Your task to perform on an android device: turn on showing notifications on the lock screen Image 0: 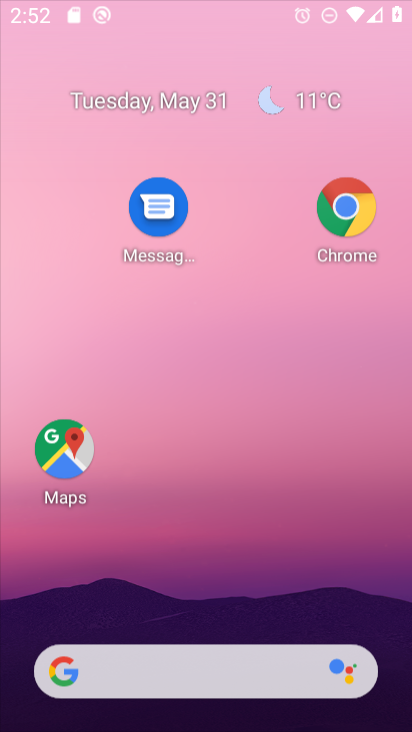
Step 0: click (329, 79)
Your task to perform on an android device: turn on showing notifications on the lock screen Image 1: 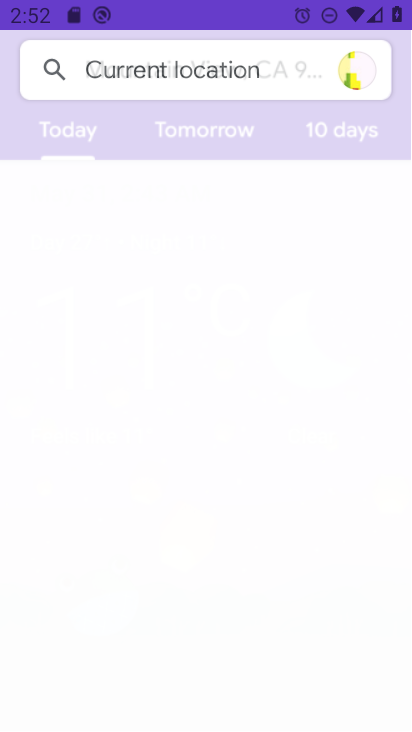
Step 1: drag from (213, 588) to (364, 16)
Your task to perform on an android device: turn on showing notifications on the lock screen Image 2: 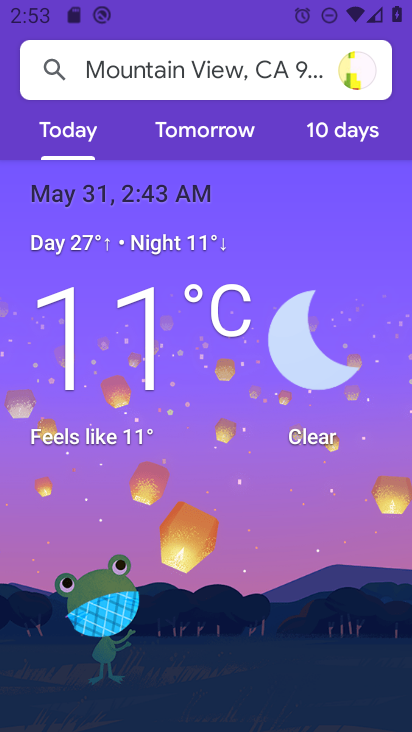
Step 2: press home button
Your task to perform on an android device: turn on showing notifications on the lock screen Image 3: 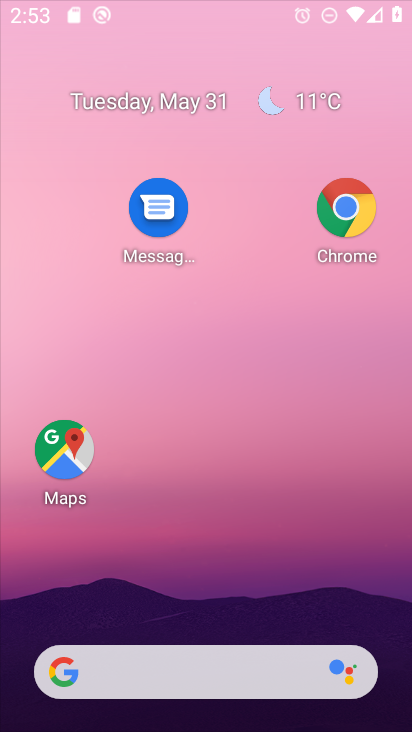
Step 3: drag from (209, 617) to (285, 39)
Your task to perform on an android device: turn on showing notifications on the lock screen Image 4: 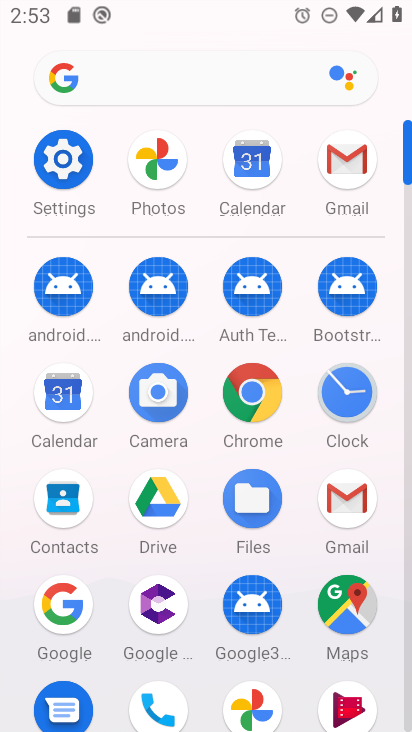
Step 4: click (69, 143)
Your task to perform on an android device: turn on showing notifications on the lock screen Image 5: 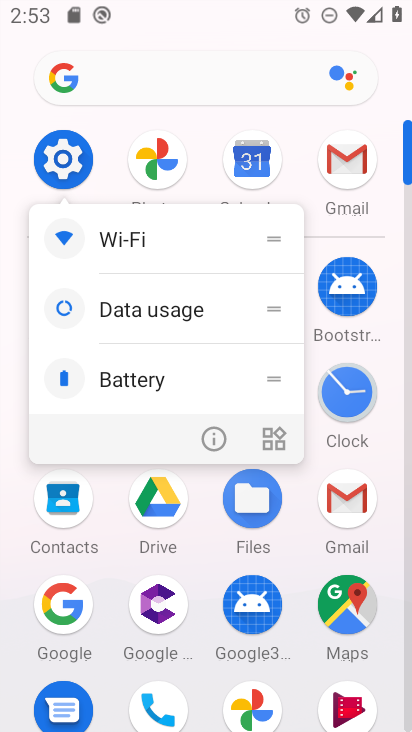
Step 5: click (228, 439)
Your task to perform on an android device: turn on showing notifications on the lock screen Image 6: 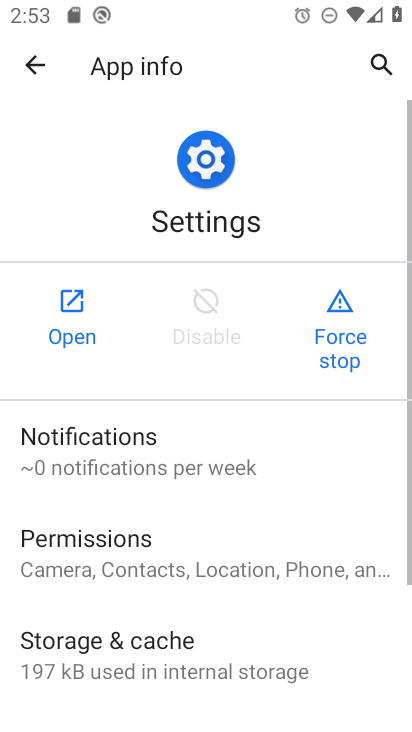
Step 6: click (103, 317)
Your task to perform on an android device: turn on showing notifications on the lock screen Image 7: 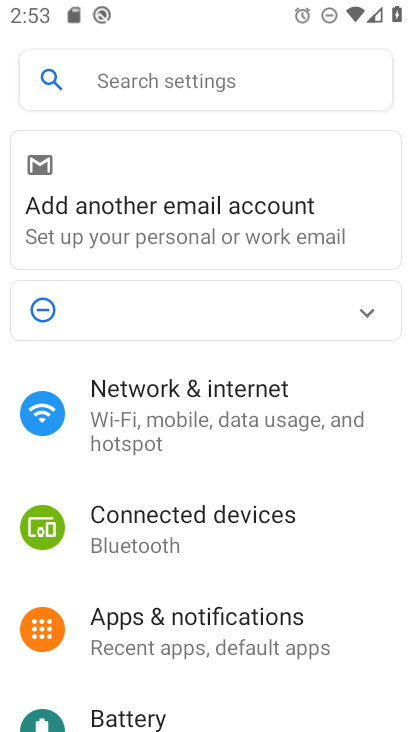
Step 7: drag from (222, 634) to (327, 141)
Your task to perform on an android device: turn on showing notifications on the lock screen Image 8: 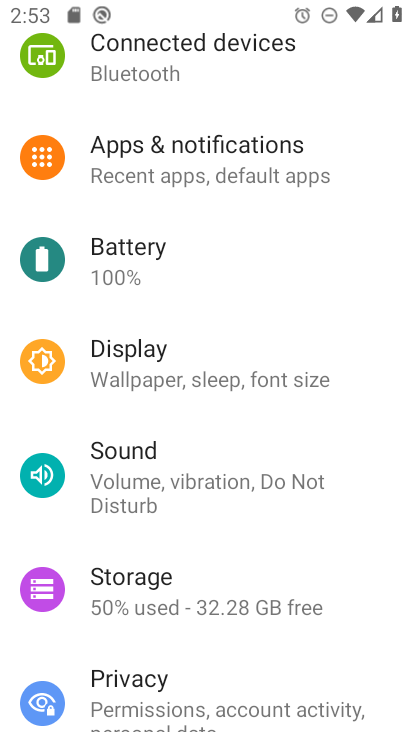
Step 8: click (213, 176)
Your task to perform on an android device: turn on showing notifications on the lock screen Image 9: 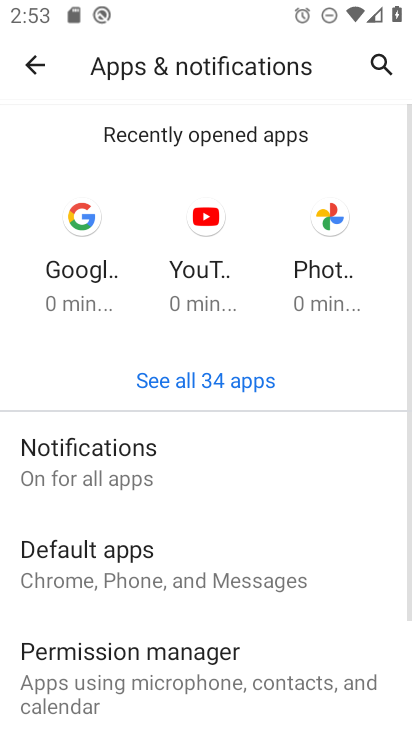
Step 9: click (209, 451)
Your task to perform on an android device: turn on showing notifications on the lock screen Image 10: 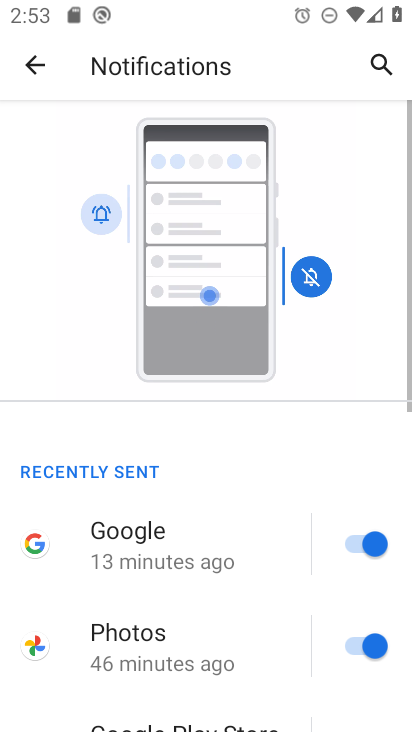
Step 10: drag from (245, 612) to (405, 140)
Your task to perform on an android device: turn on showing notifications on the lock screen Image 11: 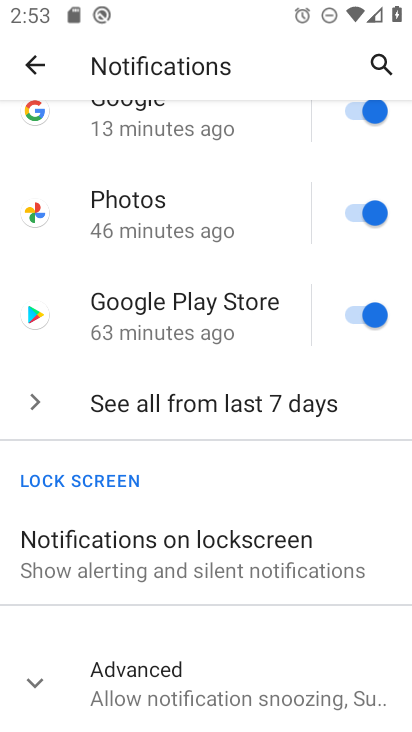
Step 11: click (214, 565)
Your task to perform on an android device: turn on showing notifications on the lock screen Image 12: 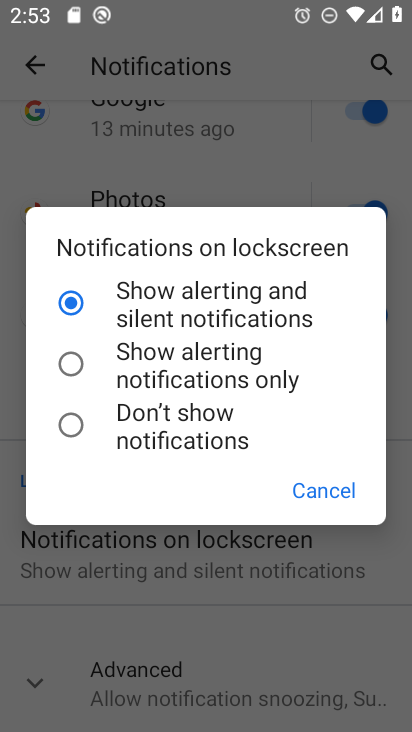
Step 12: click (67, 355)
Your task to perform on an android device: turn on showing notifications on the lock screen Image 13: 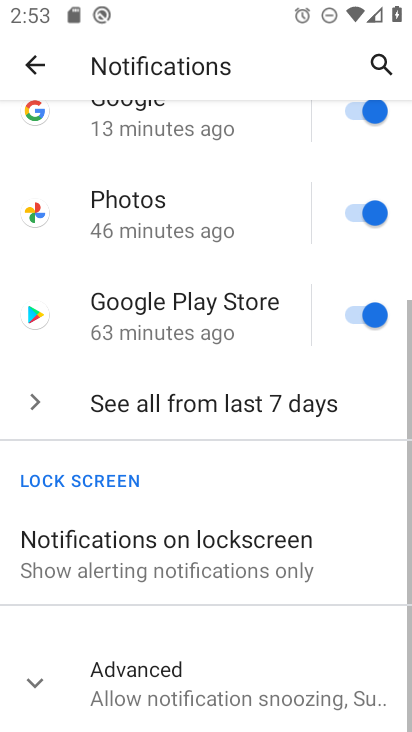
Step 13: task complete